Your task to perform on an android device: turn vacation reply on in the gmail app Image 0: 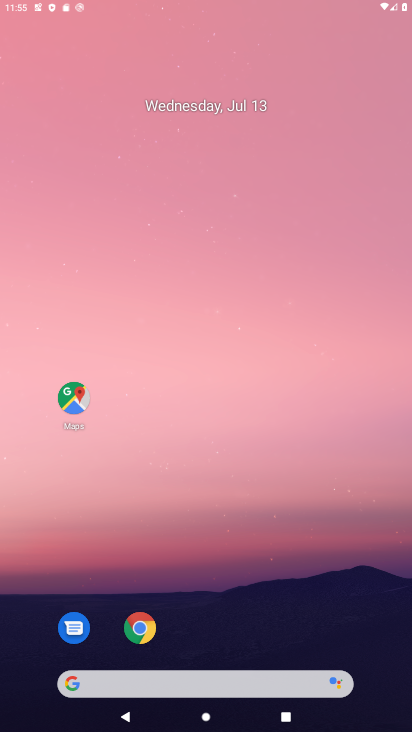
Step 0: press home button
Your task to perform on an android device: turn vacation reply on in the gmail app Image 1: 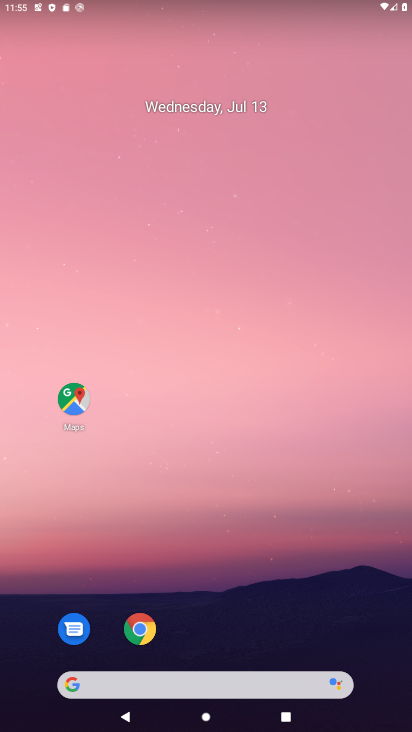
Step 1: drag from (358, 633) to (287, 78)
Your task to perform on an android device: turn vacation reply on in the gmail app Image 2: 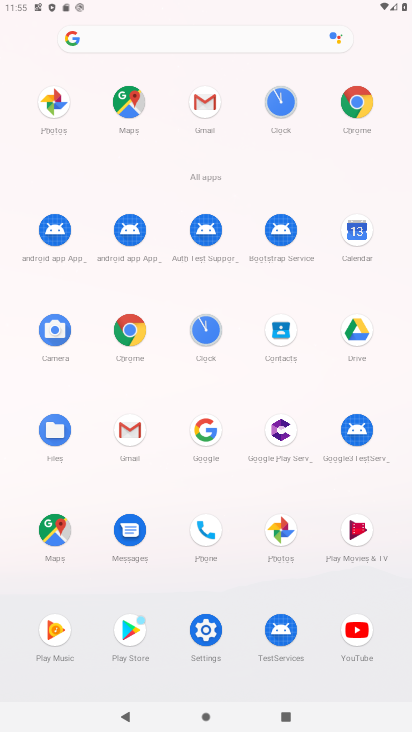
Step 2: click (201, 105)
Your task to perform on an android device: turn vacation reply on in the gmail app Image 3: 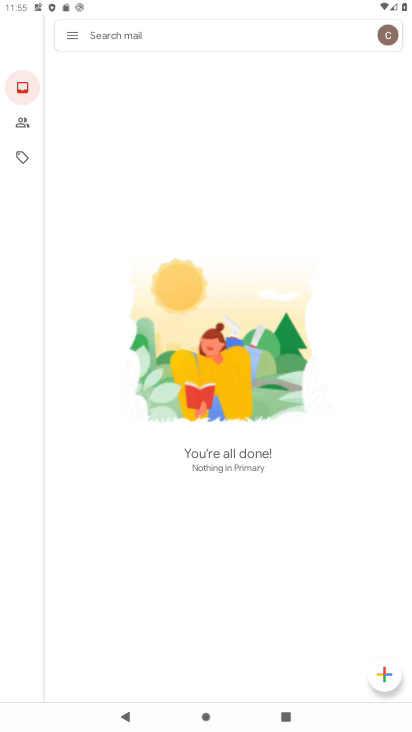
Step 3: click (69, 35)
Your task to perform on an android device: turn vacation reply on in the gmail app Image 4: 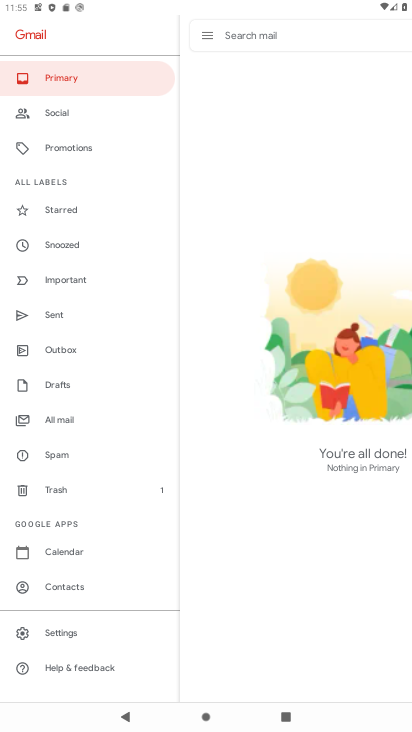
Step 4: click (70, 630)
Your task to perform on an android device: turn vacation reply on in the gmail app Image 5: 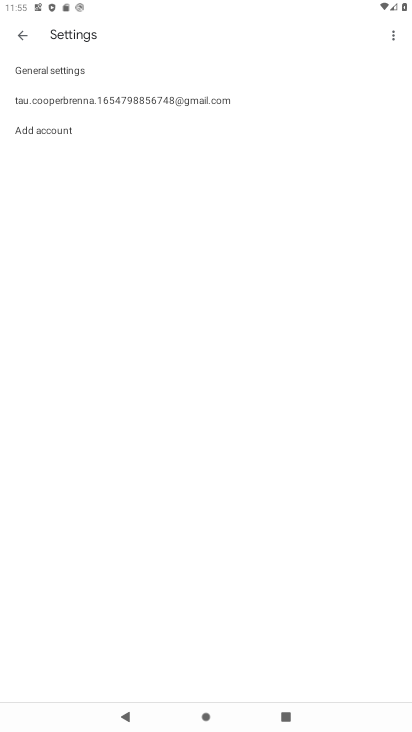
Step 5: click (165, 99)
Your task to perform on an android device: turn vacation reply on in the gmail app Image 6: 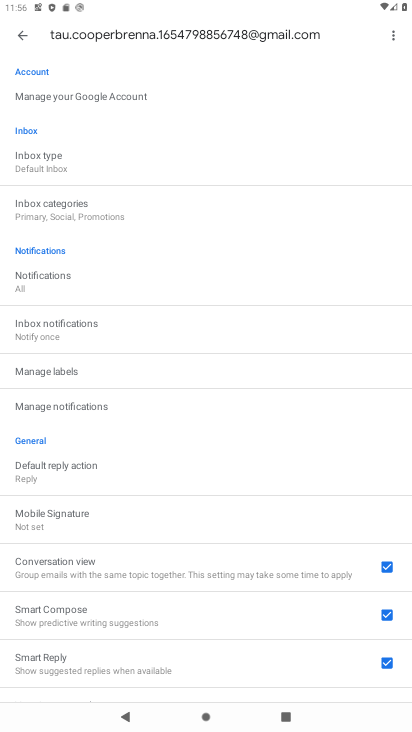
Step 6: drag from (111, 645) to (101, 250)
Your task to perform on an android device: turn vacation reply on in the gmail app Image 7: 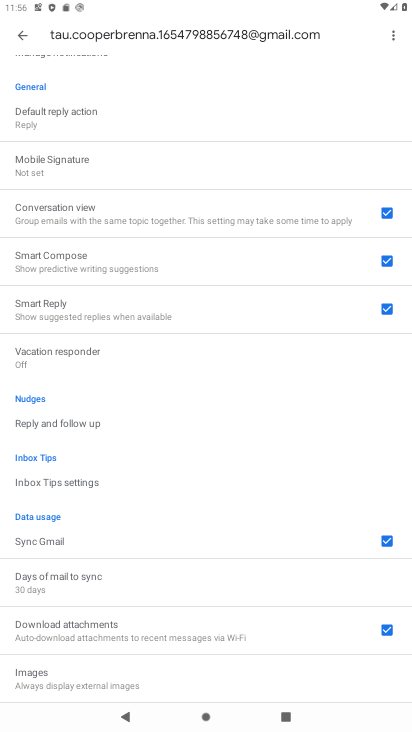
Step 7: click (150, 356)
Your task to perform on an android device: turn vacation reply on in the gmail app Image 8: 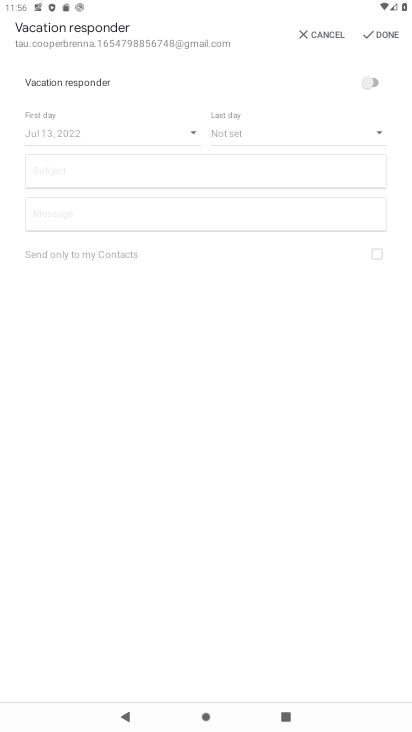
Step 8: click (380, 82)
Your task to perform on an android device: turn vacation reply on in the gmail app Image 9: 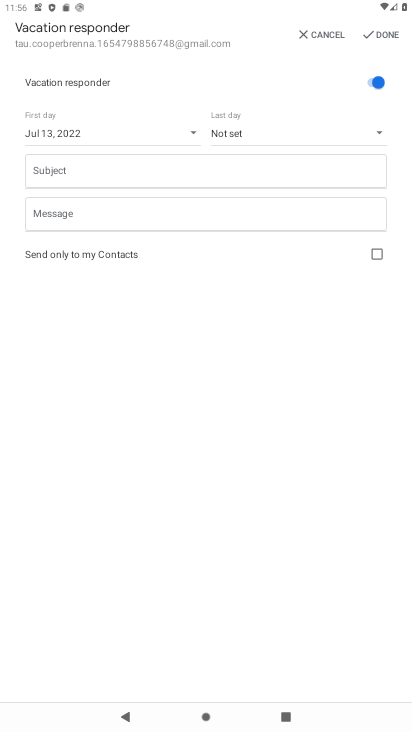
Step 9: click (328, 157)
Your task to perform on an android device: turn vacation reply on in the gmail app Image 10: 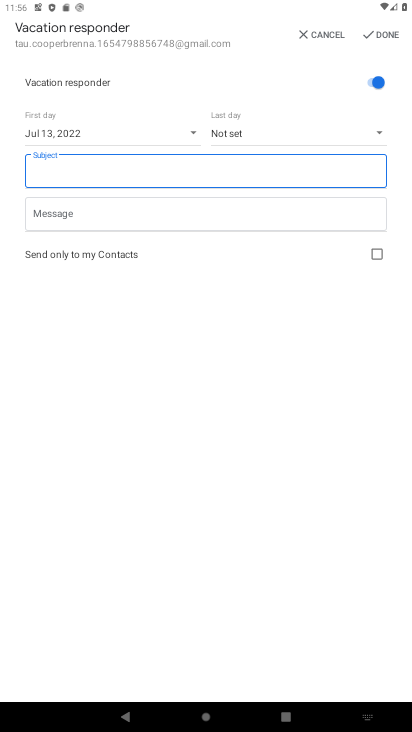
Step 10: type " b nm mn"
Your task to perform on an android device: turn vacation reply on in the gmail app Image 11: 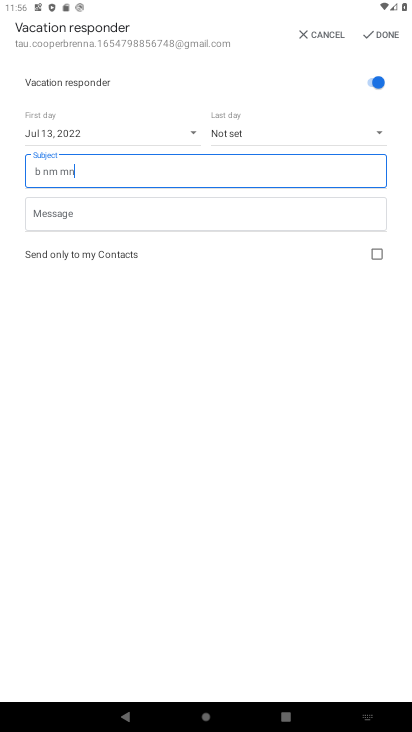
Step 11: click (385, 32)
Your task to perform on an android device: turn vacation reply on in the gmail app Image 12: 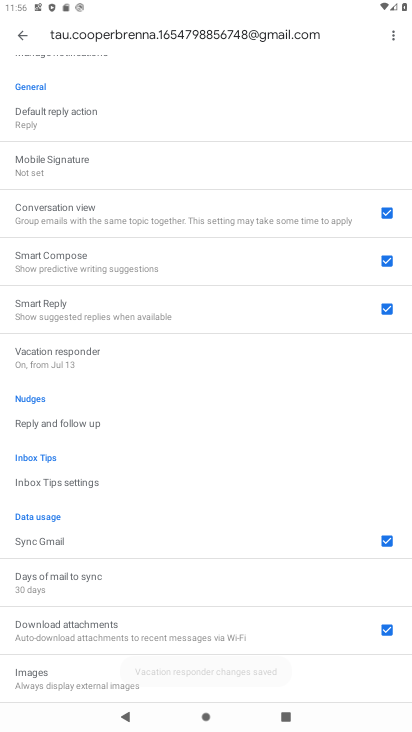
Step 12: task complete